Your task to perform on an android device: find snoozed emails in the gmail app Image 0: 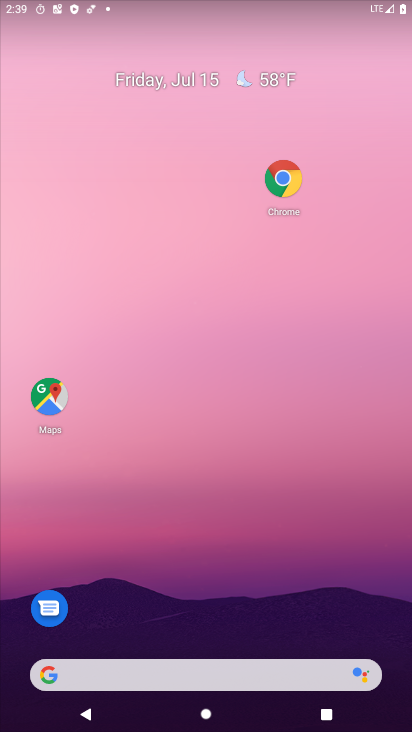
Step 0: drag from (170, 510) to (199, 77)
Your task to perform on an android device: find snoozed emails in the gmail app Image 1: 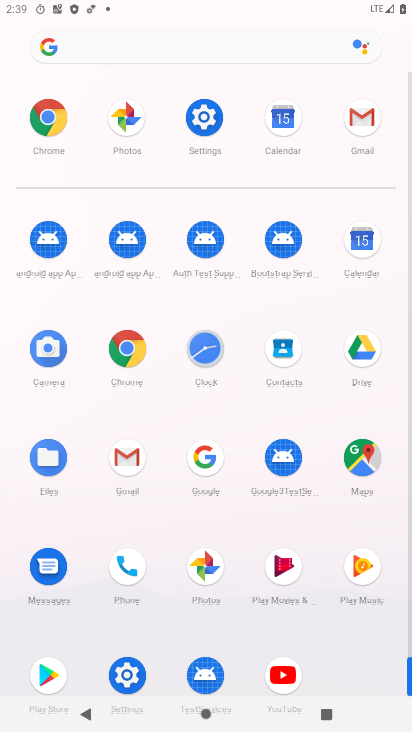
Step 1: click (125, 452)
Your task to perform on an android device: find snoozed emails in the gmail app Image 2: 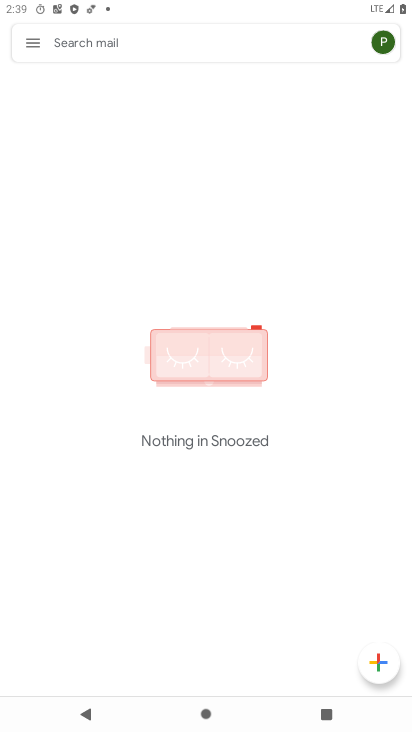
Step 2: click (32, 42)
Your task to perform on an android device: find snoozed emails in the gmail app Image 3: 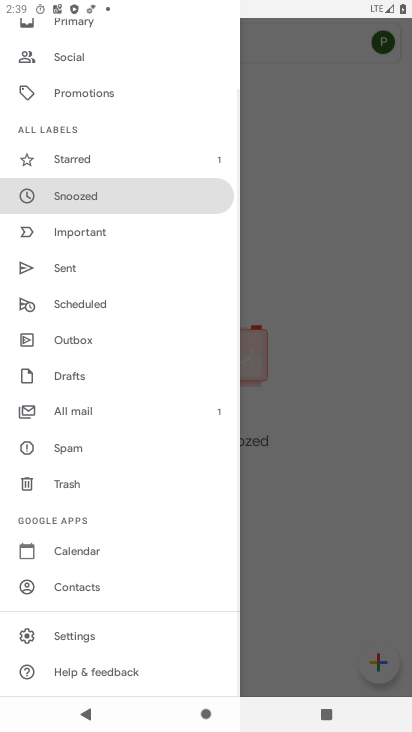
Step 3: drag from (88, 72) to (118, 452)
Your task to perform on an android device: find snoozed emails in the gmail app Image 4: 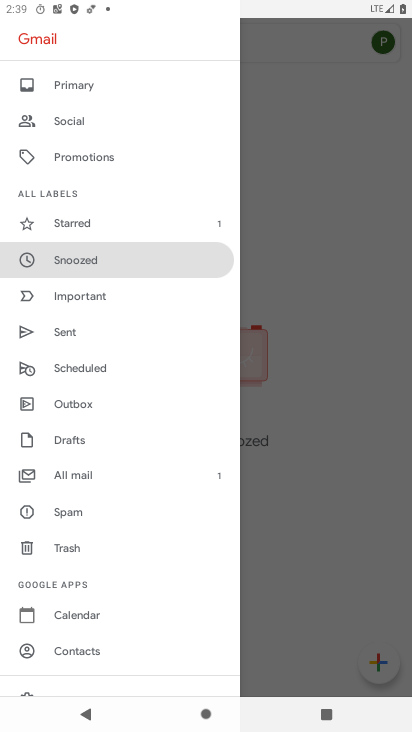
Step 4: click (105, 259)
Your task to perform on an android device: find snoozed emails in the gmail app Image 5: 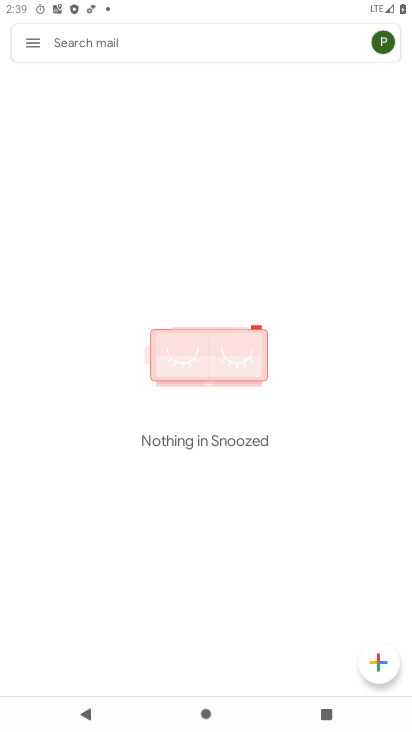
Step 5: task complete